Your task to perform on an android device: Go to Maps Image 0: 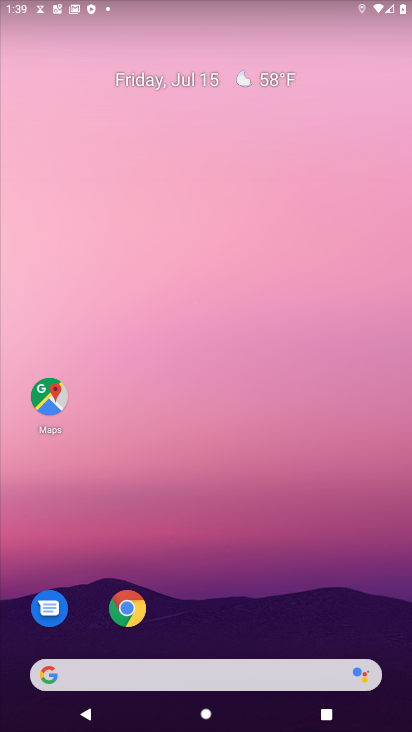
Step 0: drag from (272, 603) to (207, 70)
Your task to perform on an android device: Go to Maps Image 1: 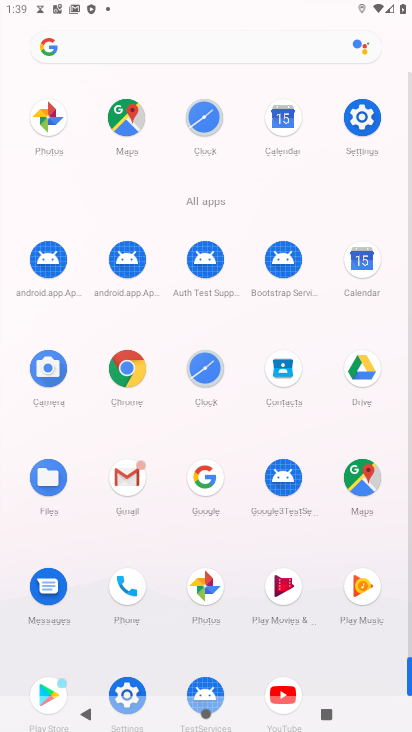
Step 1: click (361, 468)
Your task to perform on an android device: Go to Maps Image 2: 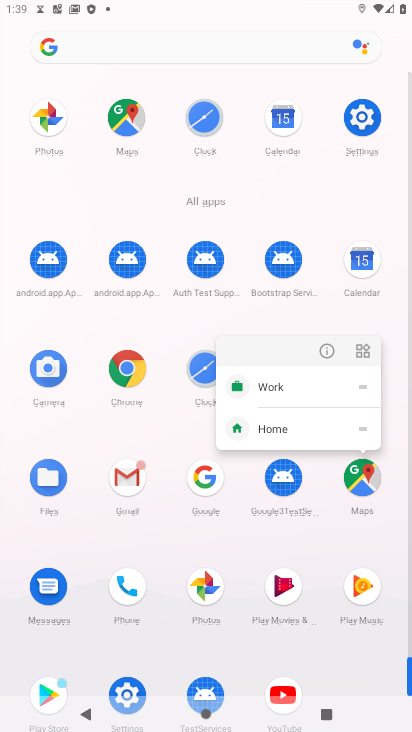
Step 2: click (352, 477)
Your task to perform on an android device: Go to Maps Image 3: 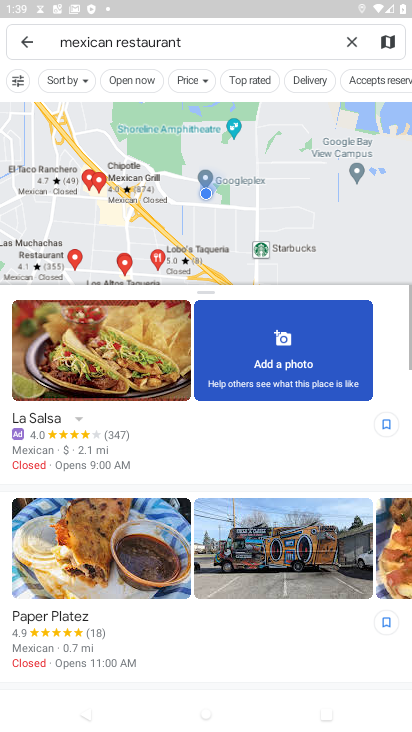
Step 3: click (21, 35)
Your task to perform on an android device: Go to Maps Image 4: 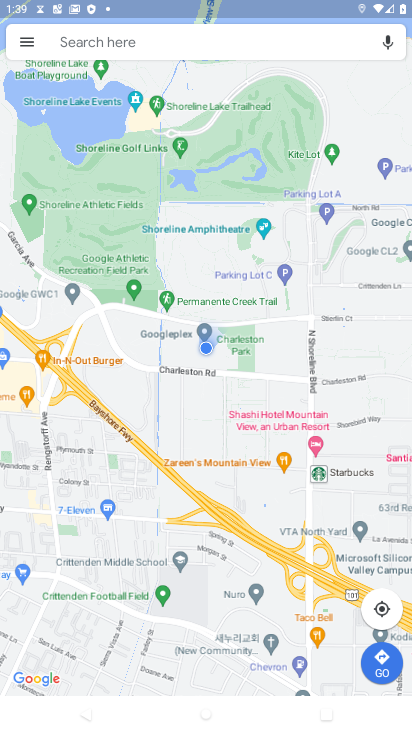
Step 4: task complete